Your task to perform on an android device: Go to accessibility settings Image 0: 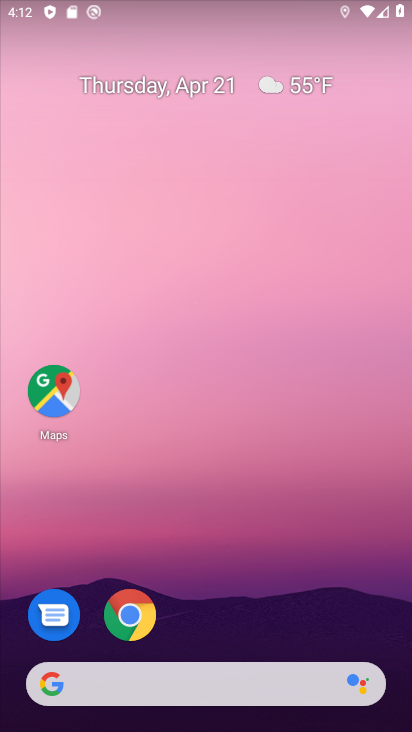
Step 0: drag from (233, 643) to (241, 126)
Your task to perform on an android device: Go to accessibility settings Image 1: 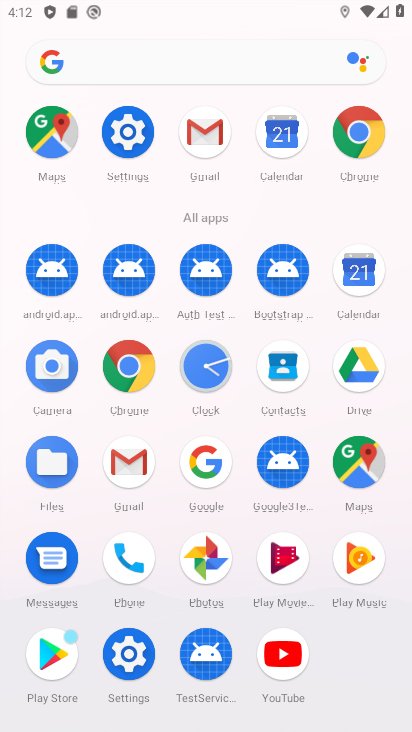
Step 1: click (118, 150)
Your task to perform on an android device: Go to accessibility settings Image 2: 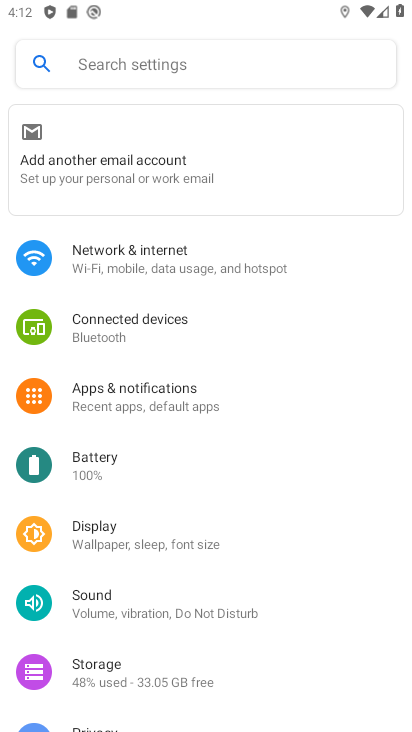
Step 2: drag from (178, 663) to (196, 186)
Your task to perform on an android device: Go to accessibility settings Image 3: 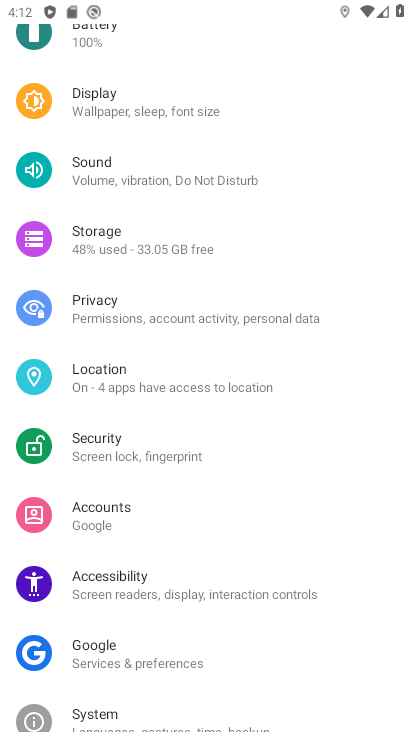
Step 3: click (145, 572)
Your task to perform on an android device: Go to accessibility settings Image 4: 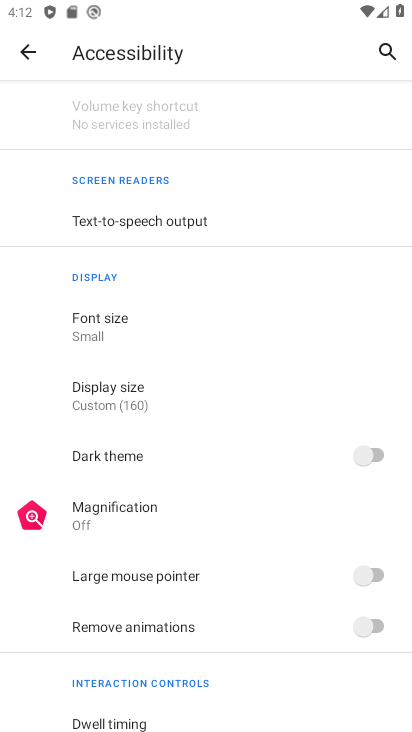
Step 4: task complete